Your task to perform on an android device: open app "Grab" (install if not already installed) Image 0: 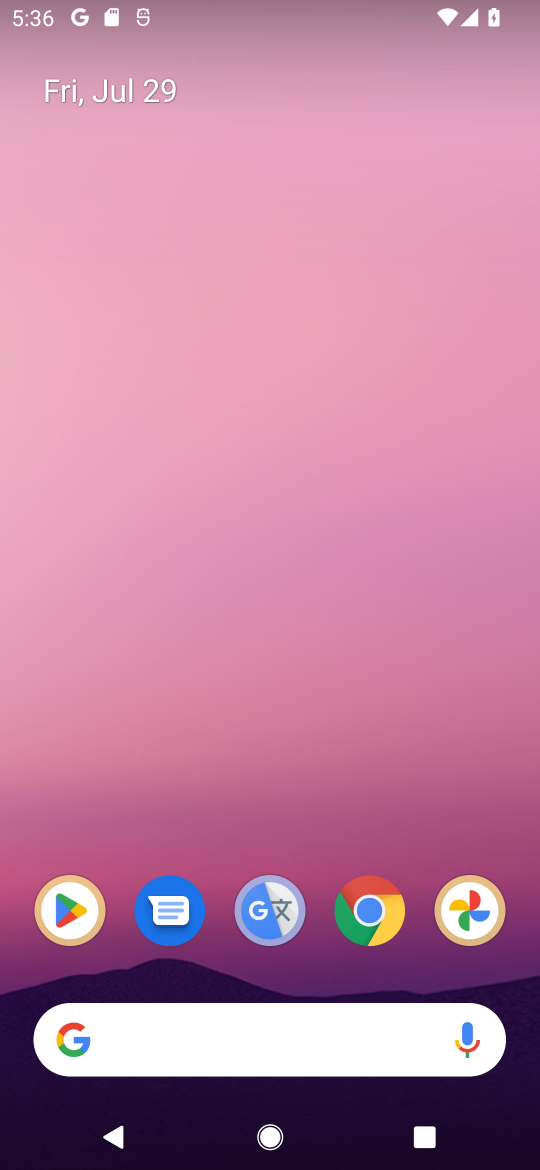
Step 0: click (84, 918)
Your task to perform on an android device: open app "Grab" (install if not already installed) Image 1: 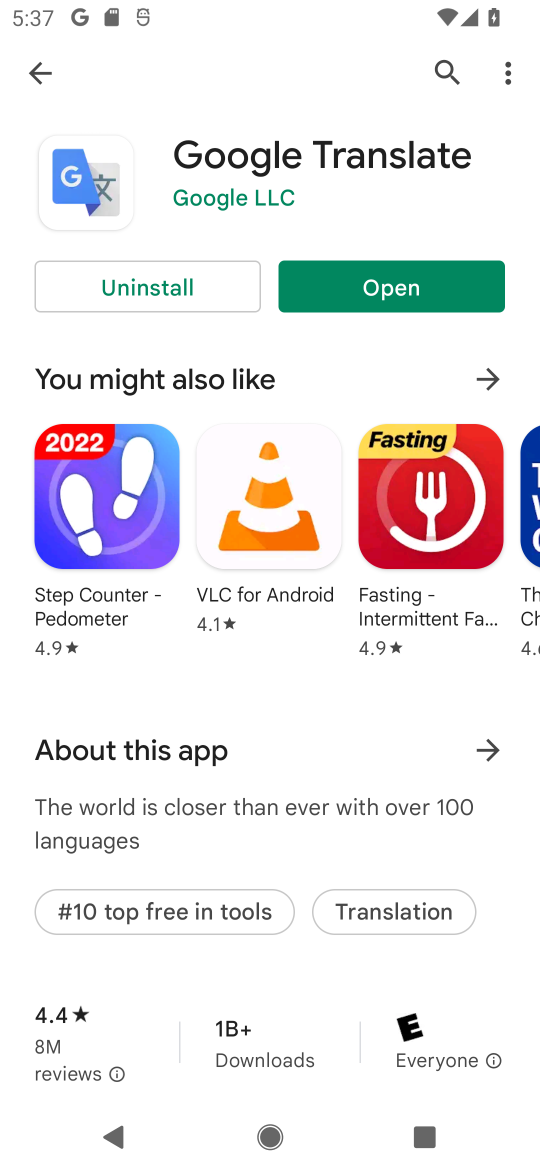
Step 1: click (442, 67)
Your task to perform on an android device: open app "Grab" (install if not already installed) Image 2: 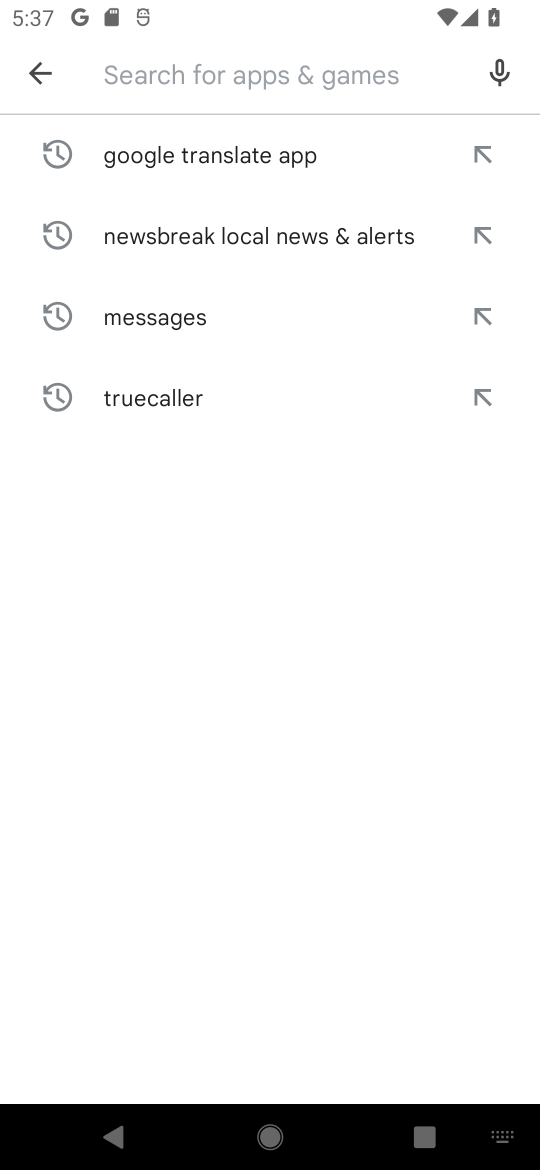
Step 2: type "grab"
Your task to perform on an android device: open app "Grab" (install if not already installed) Image 3: 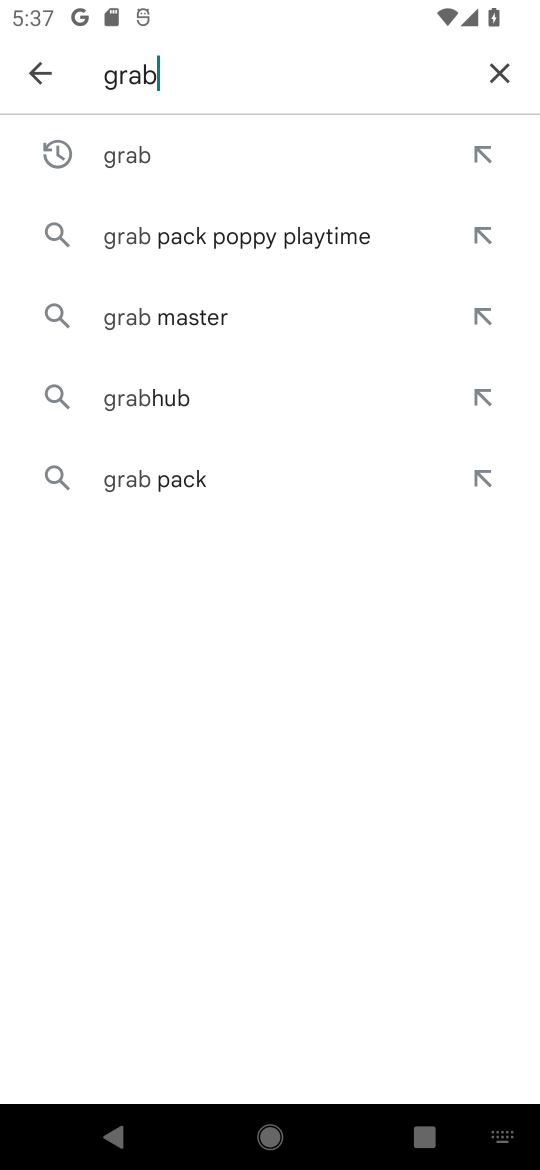
Step 3: click (250, 151)
Your task to perform on an android device: open app "Grab" (install if not already installed) Image 4: 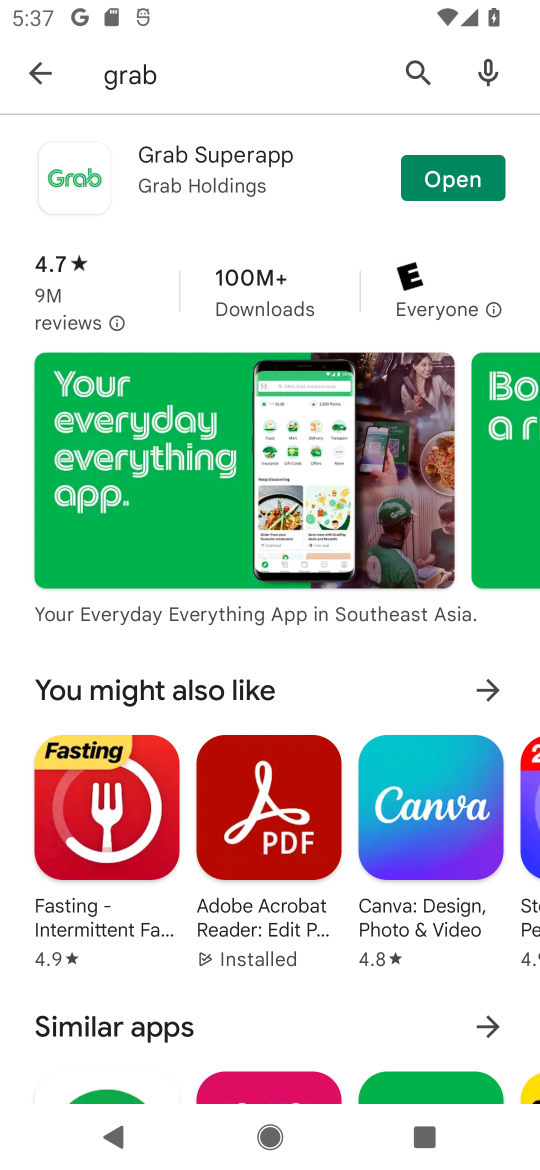
Step 4: click (197, 160)
Your task to perform on an android device: open app "Grab" (install if not already installed) Image 5: 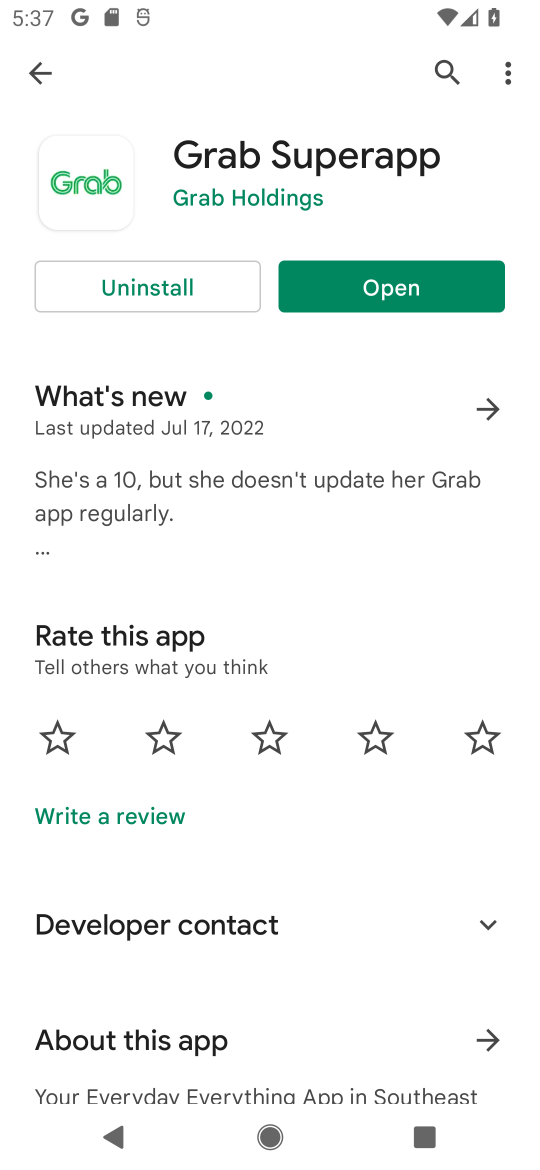
Step 5: click (448, 292)
Your task to perform on an android device: open app "Grab" (install if not already installed) Image 6: 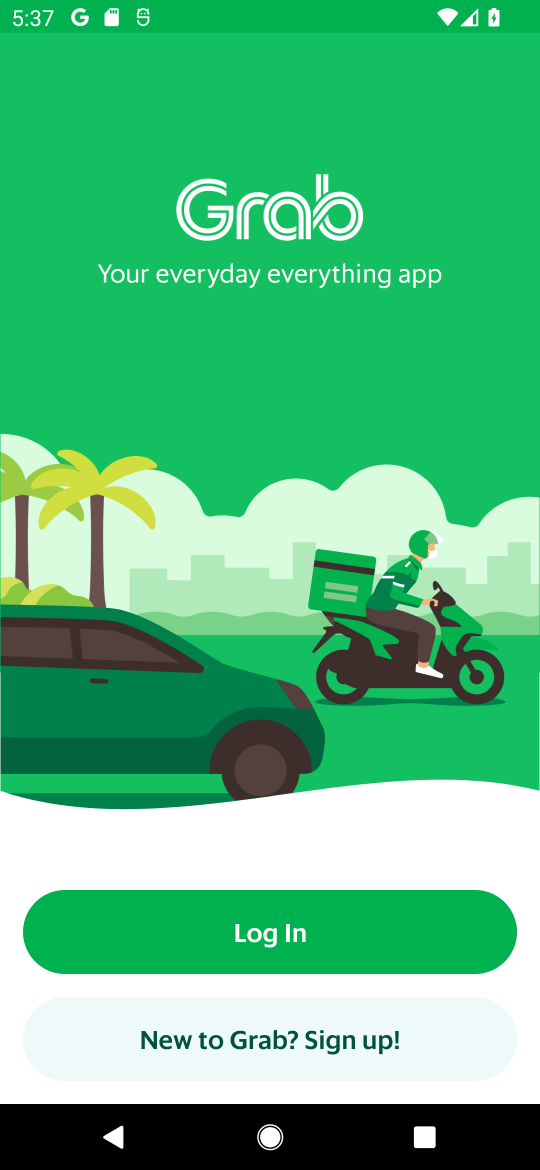
Step 6: task complete